Your task to perform on an android device: toggle pop-ups in chrome Image 0: 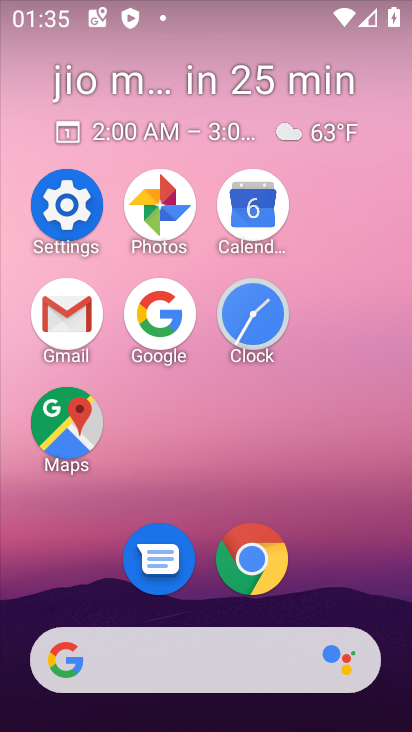
Step 0: click (269, 543)
Your task to perform on an android device: toggle pop-ups in chrome Image 1: 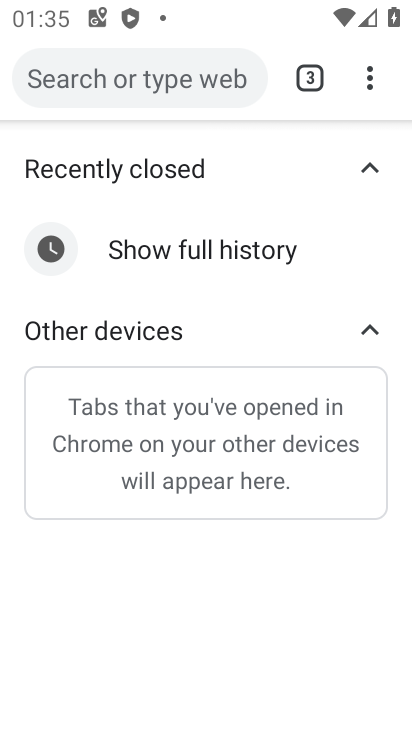
Step 1: click (374, 79)
Your task to perform on an android device: toggle pop-ups in chrome Image 2: 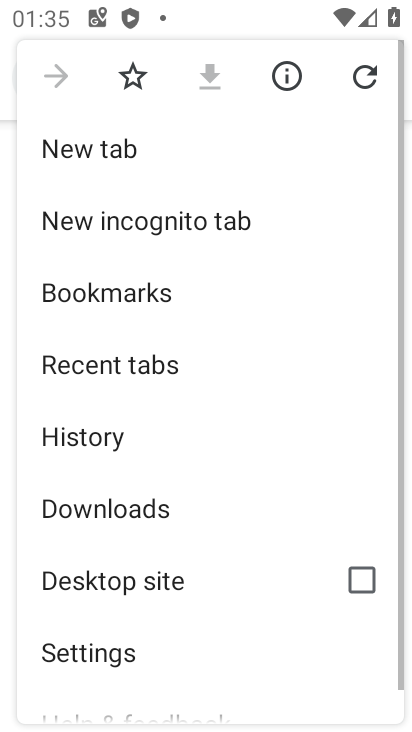
Step 2: drag from (198, 530) to (199, 128)
Your task to perform on an android device: toggle pop-ups in chrome Image 3: 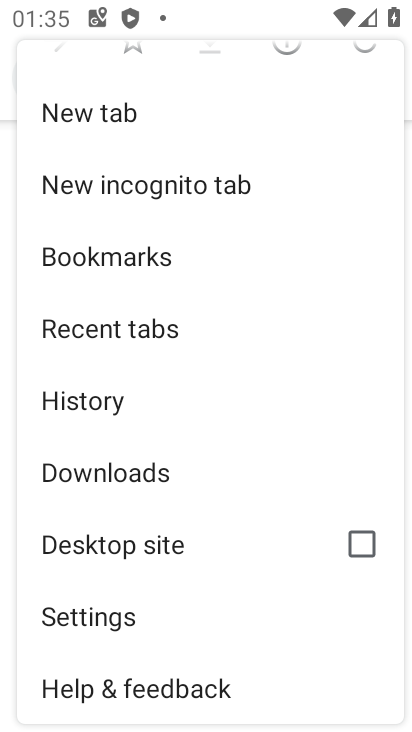
Step 3: click (95, 635)
Your task to perform on an android device: toggle pop-ups in chrome Image 4: 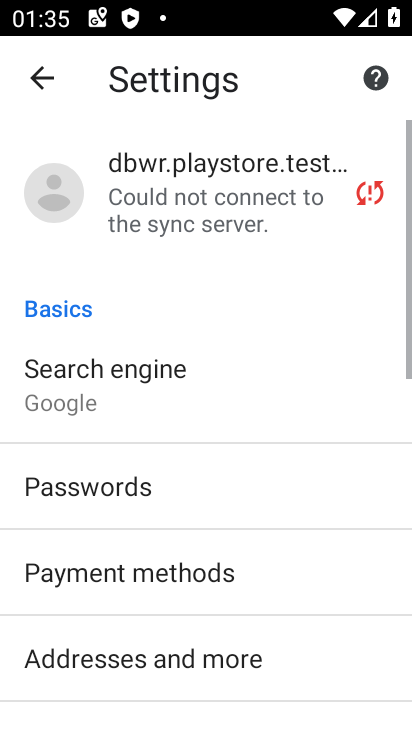
Step 4: drag from (98, 629) to (150, 217)
Your task to perform on an android device: toggle pop-ups in chrome Image 5: 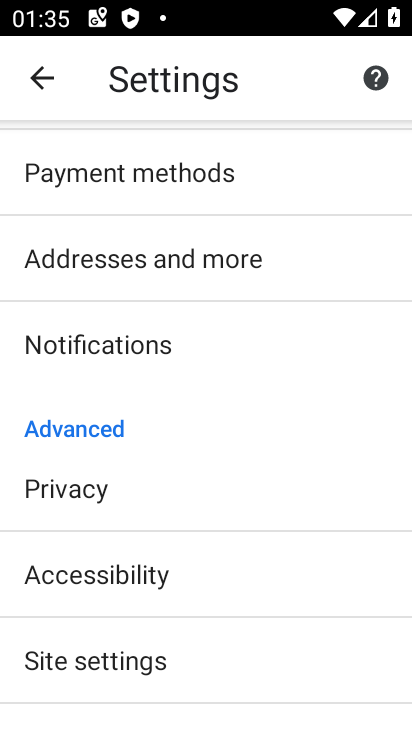
Step 5: drag from (195, 590) to (207, 251)
Your task to perform on an android device: toggle pop-ups in chrome Image 6: 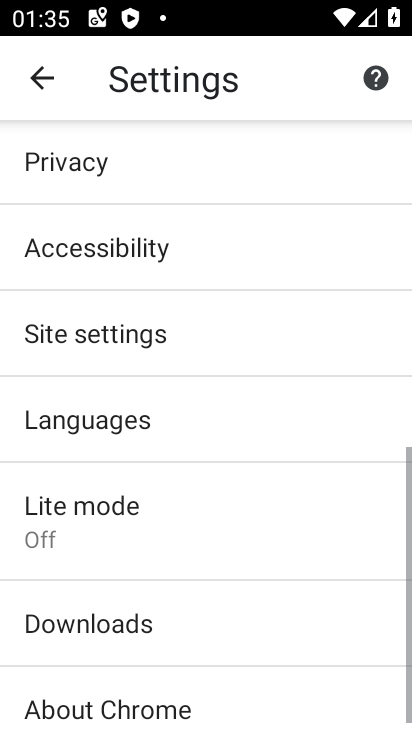
Step 6: click (204, 327)
Your task to perform on an android device: toggle pop-ups in chrome Image 7: 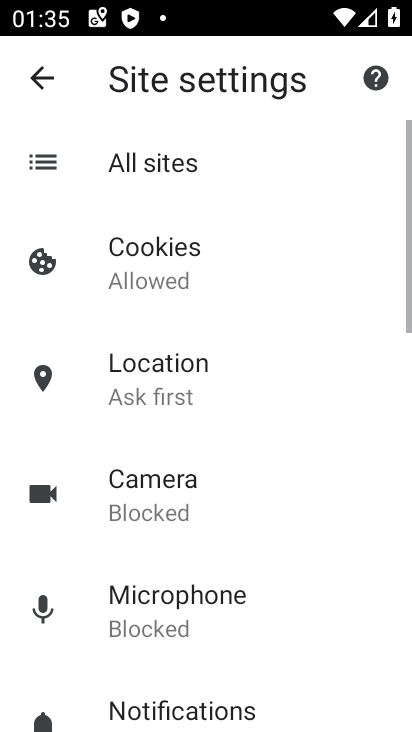
Step 7: drag from (252, 607) to (272, 222)
Your task to perform on an android device: toggle pop-ups in chrome Image 8: 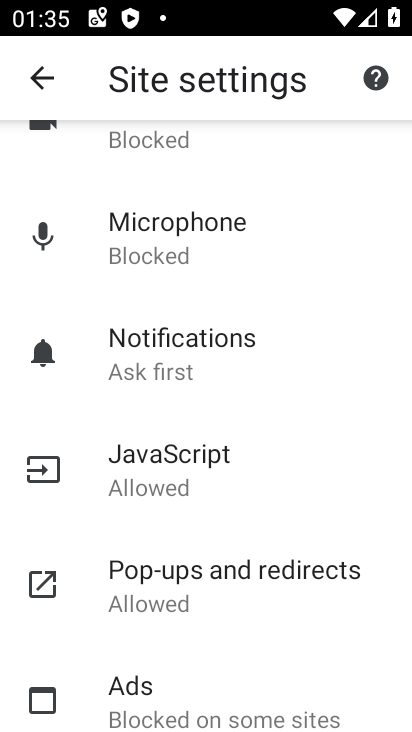
Step 8: click (219, 600)
Your task to perform on an android device: toggle pop-ups in chrome Image 9: 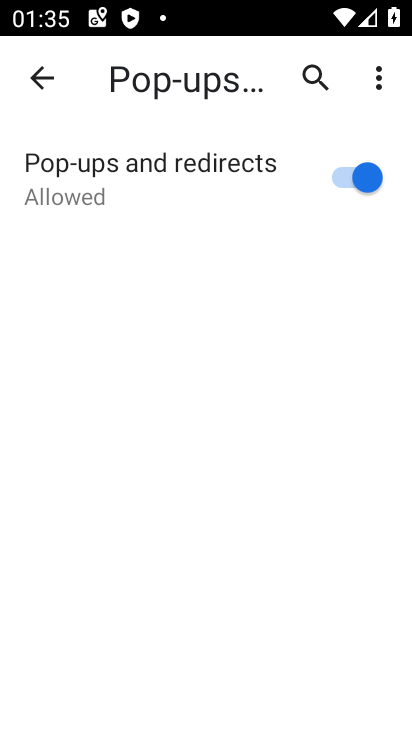
Step 9: click (370, 180)
Your task to perform on an android device: toggle pop-ups in chrome Image 10: 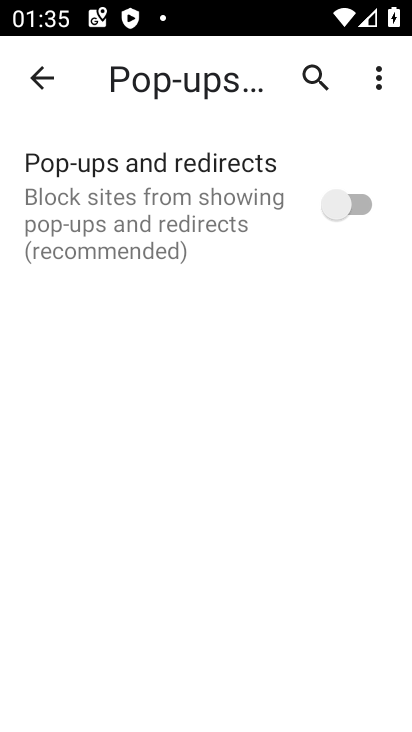
Step 10: task complete